Your task to perform on an android device: Go to calendar. Show me events next week Image 0: 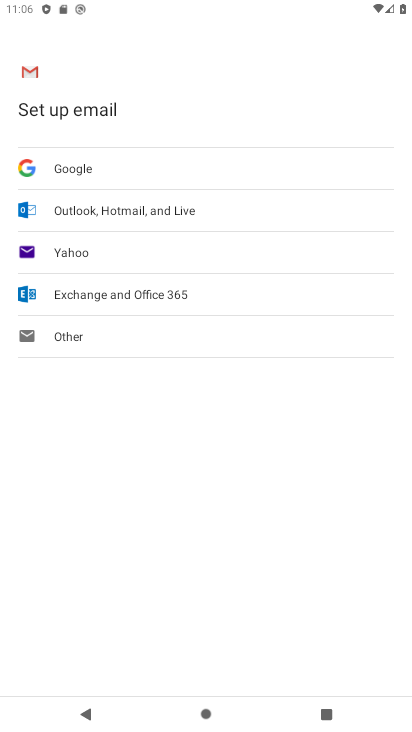
Step 0: press home button
Your task to perform on an android device: Go to calendar. Show me events next week Image 1: 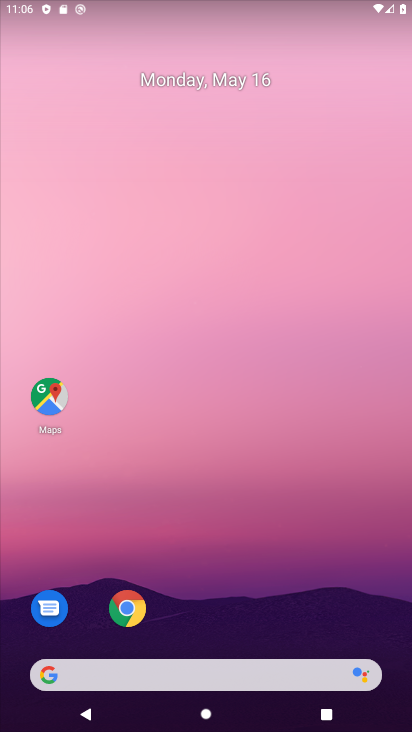
Step 1: drag from (162, 676) to (282, 105)
Your task to perform on an android device: Go to calendar. Show me events next week Image 2: 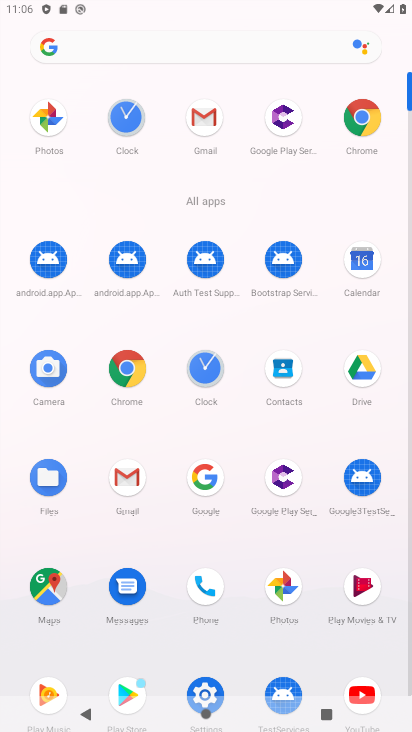
Step 2: click (364, 261)
Your task to perform on an android device: Go to calendar. Show me events next week Image 3: 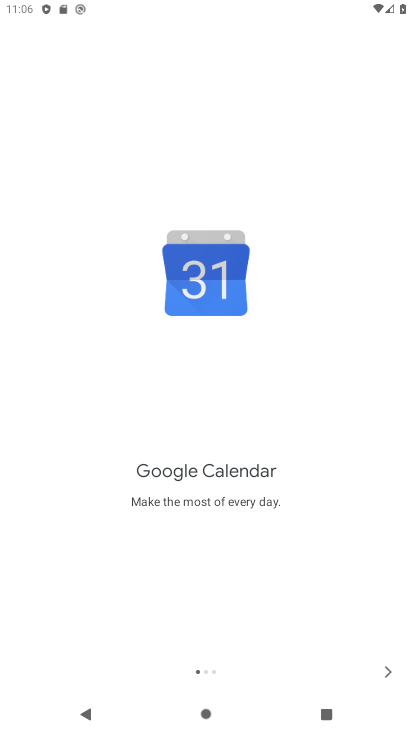
Step 3: click (398, 663)
Your task to perform on an android device: Go to calendar. Show me events next week Image 4: 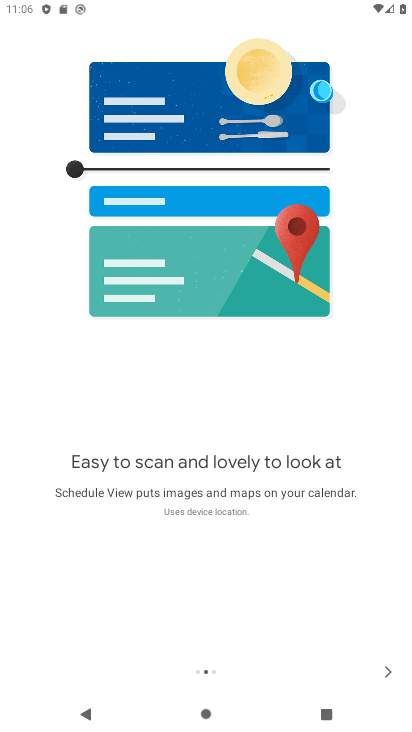
Step 4: click (398, 664)
Your task to perform on an android device: Go to calendar. Show me events next week Image 5: 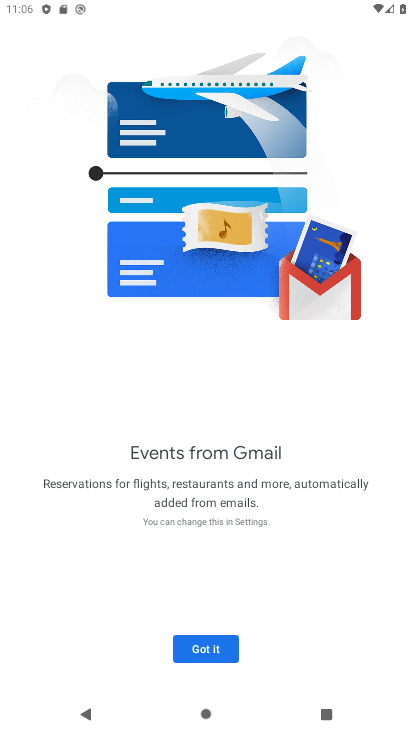
Step 5: click (200, 641)
Your task to perform on an android device: Go to calendar. Show me events next week Image 6: 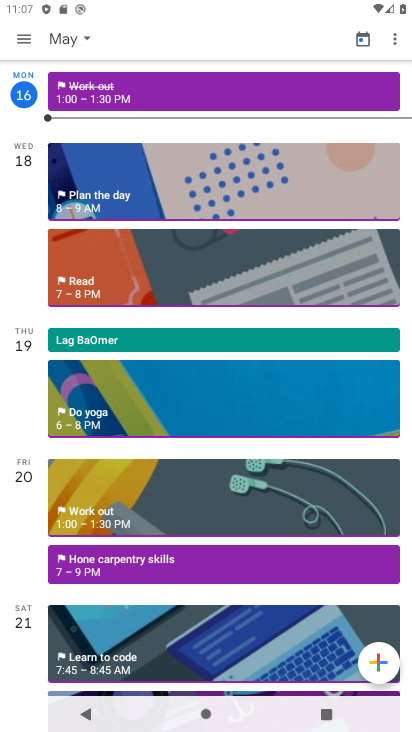
Step 6: click (59, 43)
Your task to perform on an android device: Go to calendar. Show me events next week Image 7: 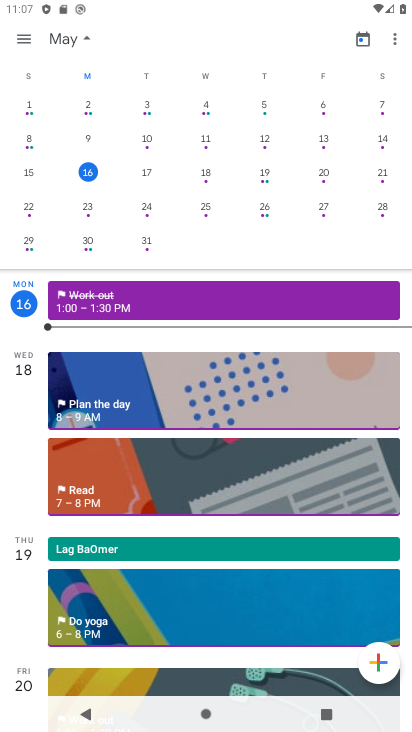
Step 7: click (30, 205)
Your task to perform on an android device: Go to calendar. Show me events next week Image 8: 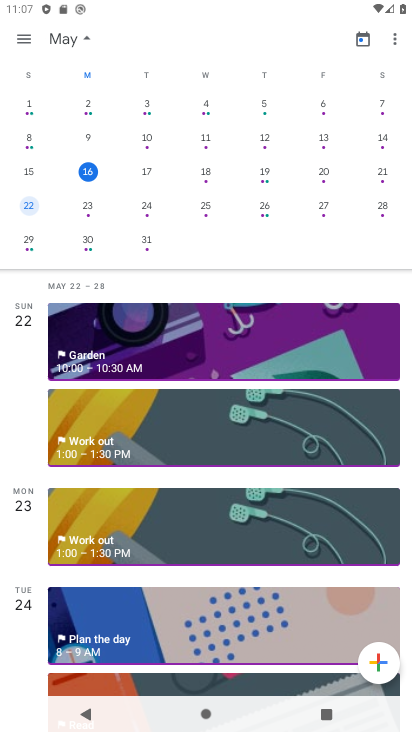
Step 8: click (29, 35)
Your task to perform on an android device: Go to calendar. Show me events next week Image 9: 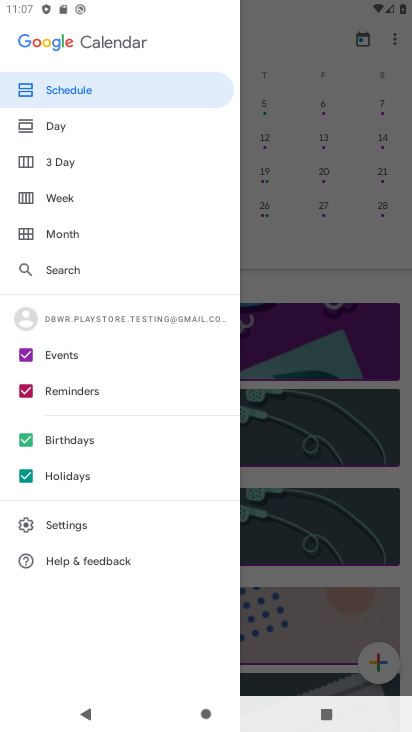
Step 9: click (52, 195)
Your task to perform on an android device: Go to calendar. Show me events next week Image 10: 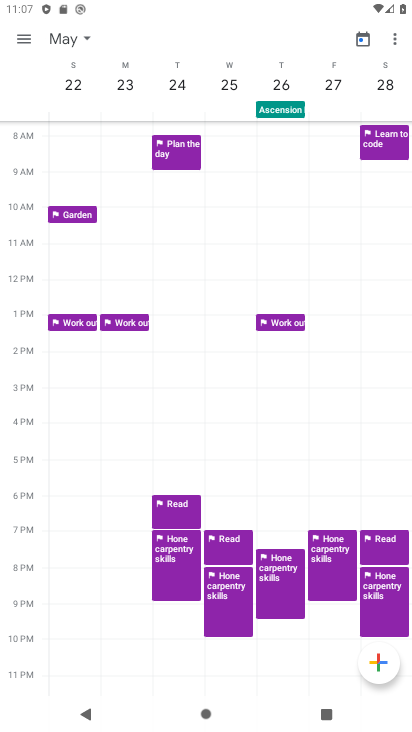
Step 10: task complete